Your task to perform on an android device: refresh tabs in the chrome app Image 0: 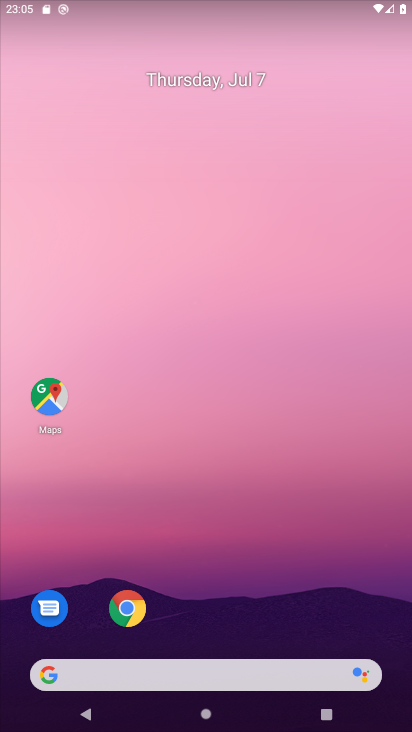
Step 0: click (132, 614)
Your task to perform on an android device: refresh tabs in the chrome app Image 1: 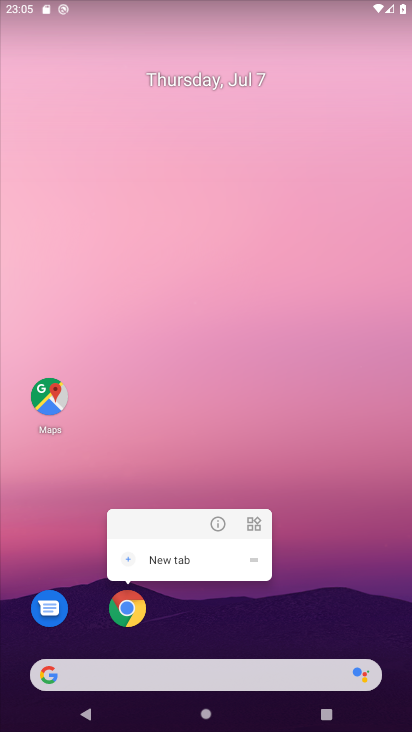
Step 1: click (130, 596)
Your task to perform on an android device: refresh tabs in the chrome app Image 2: 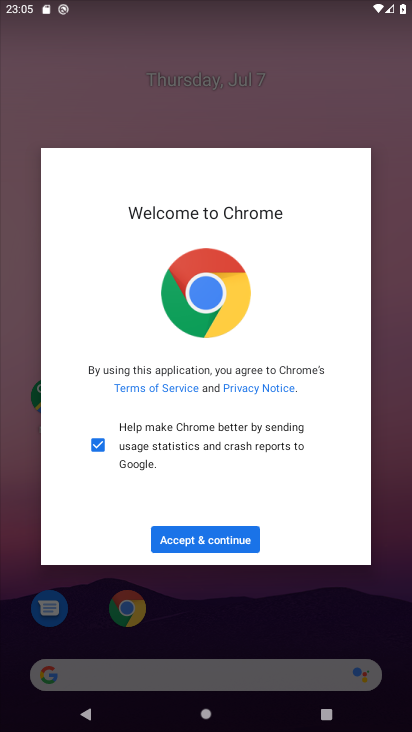
Step 2: click (196, 541)
Your task to perform on an android device: refresh tabs in the chrome app Image 3: 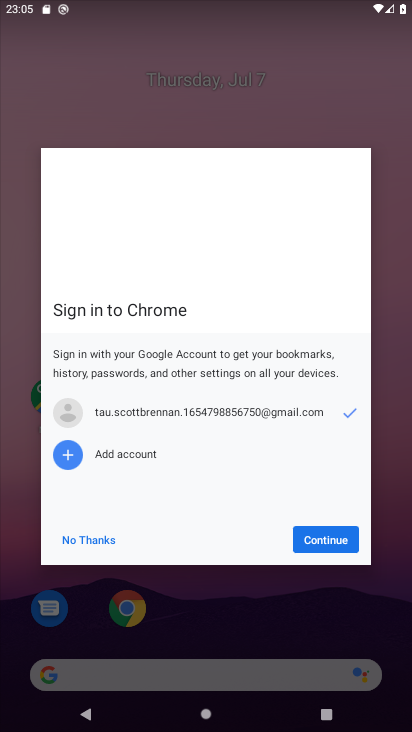
Step 3: click (342, 532)
Your task to perform on an android device: refresh tabs in the chrome app Image 4: 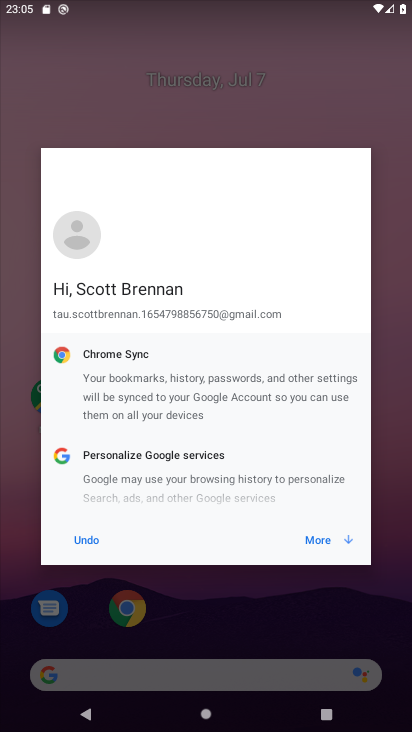
Step 4: click (307, 535)
Your task to perform on an android device: refresh tabs in the chrome app Image 5: 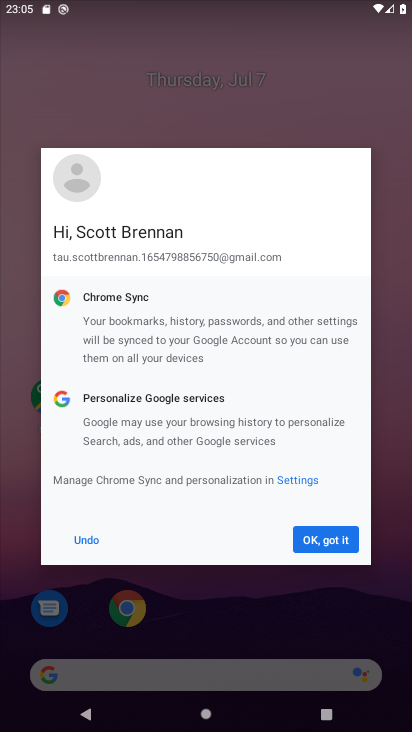
Step 5: click (309, 538)
Your task to perform on an android device: refresh tabs in the chrome app Image 6: 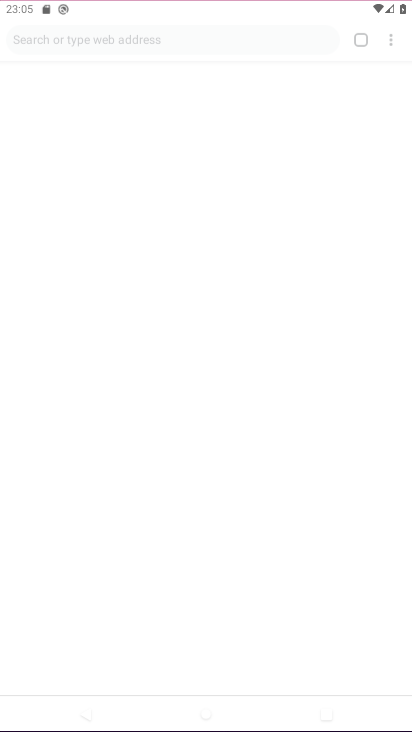
Step 6: click (309, 538)
Your task to perform on an android device: refresh tabs in the chrome app Image 7: 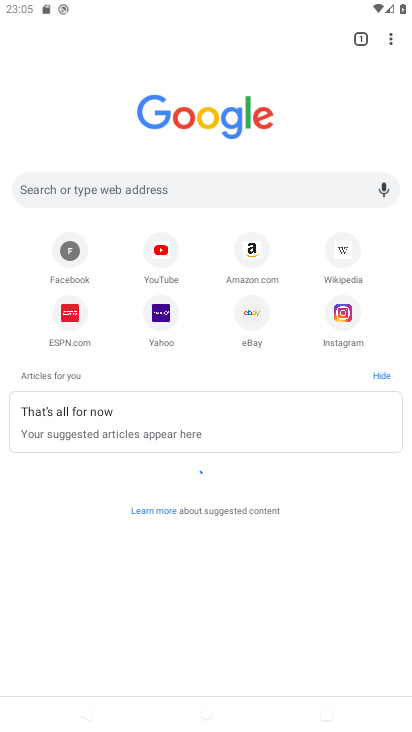
Step 7: click (399, 43)
Your task to perform on an android device: refresh tabs in the chrome app Image 8: 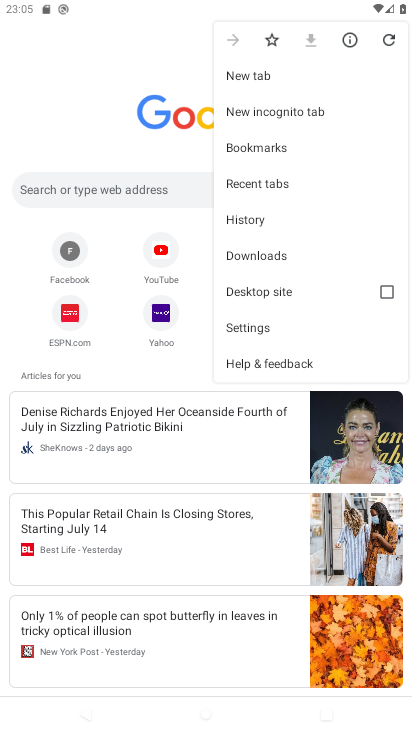
Step 8: click (389, 41)
Your task to perform on an android device: refresh tabs in the chrome app Image 9: 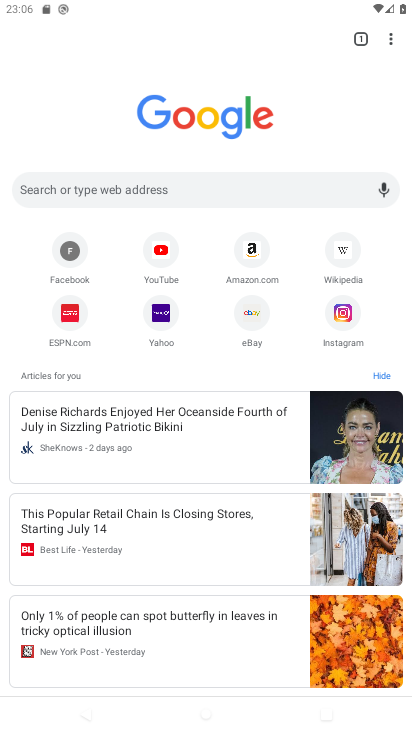
Step 9: task complete